Your task to perform on an android device: see sites visited before in the chrome app Image 0: 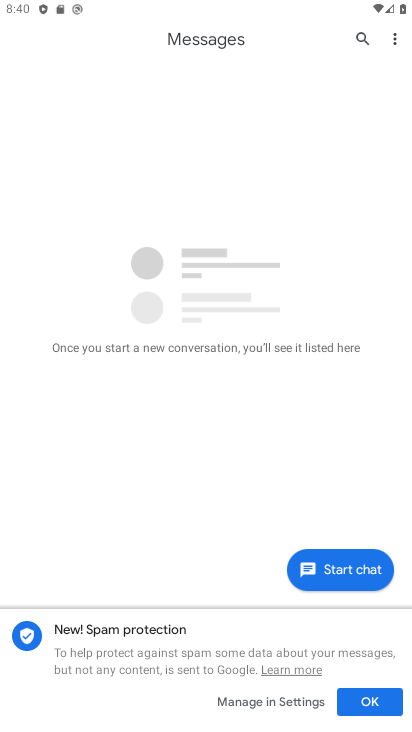
Step 0: press back button
Your task to perform on an android device: see sites visited before in the chrome app Image 1: 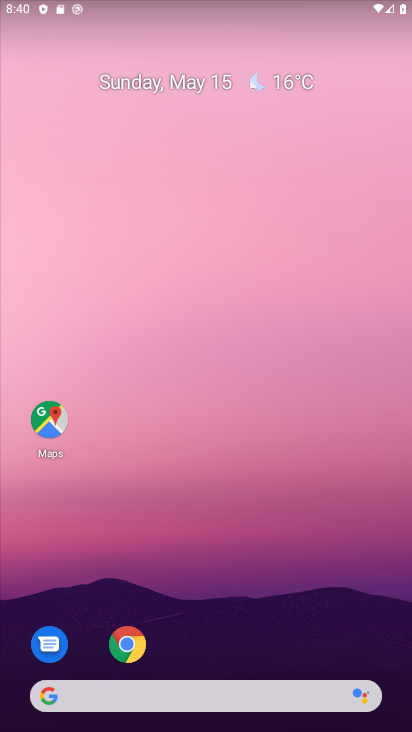
Step 1: click (131, 641)
Your task to perform on an android device: see sites visited before in the chrome app Image 2: 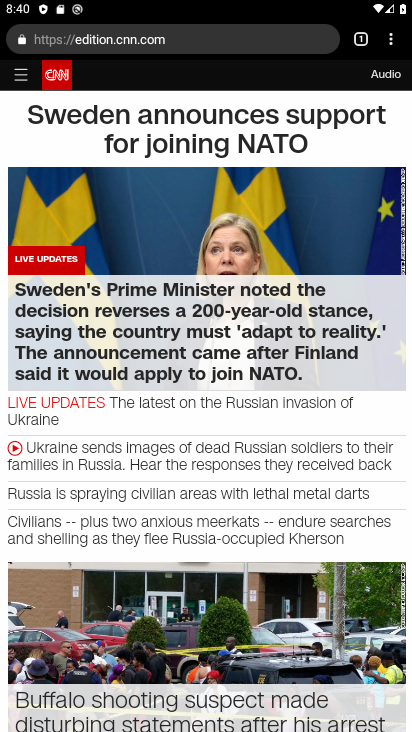
Step 2: click (393, 38)
Your task to perform on an android device: see sites visited before in the chrome app Image 3: 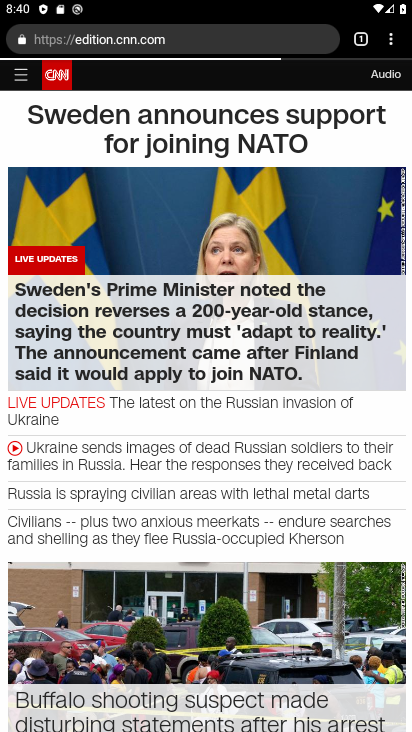
Step 3: task complete